Your task to perform on an android device: Show the shopping cart on amazon. Search for "razer blackwidow" on amazon, select the first entry, and add it to the cart. Image 0: 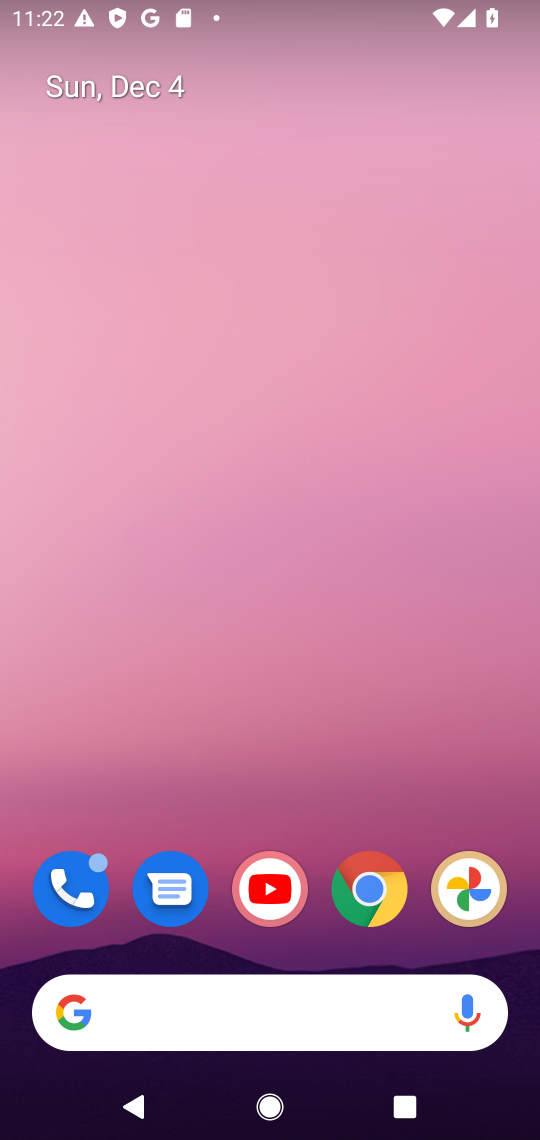
Step 0: click (359, 872)
Your task to perform on an android device: Show the shopping cart on amazon. Search for "razer blackwidow" on amazon, select the first entry, and add it to the cart. Image 1: 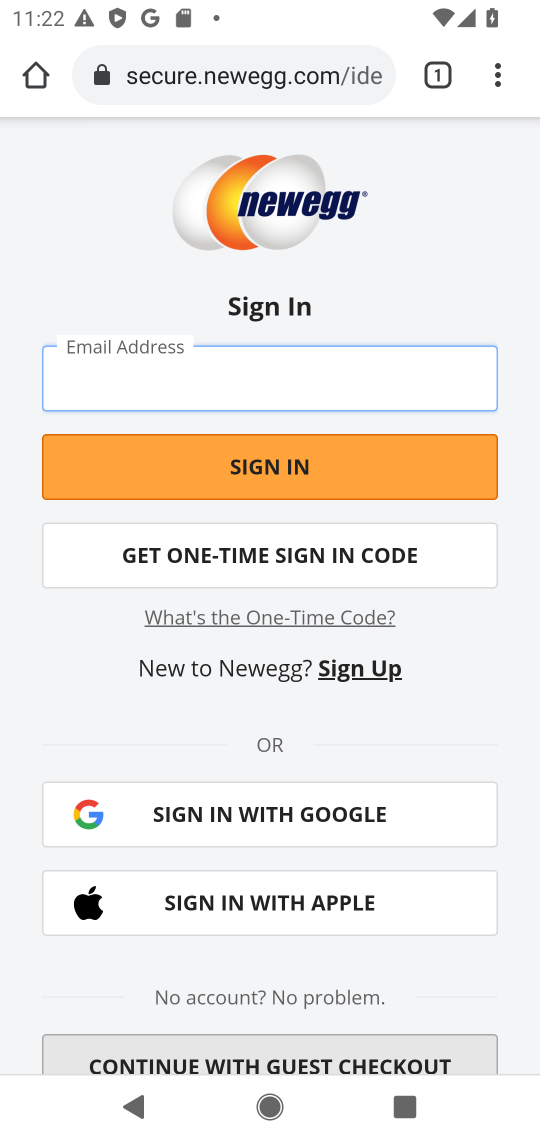
Step 1: click (306, 65)
Your task to perform on an android device: Show the shopping cart on amazon. Search for "razer blackwidow" on amazon, select the first entry, and add it to the cart. Image 2: 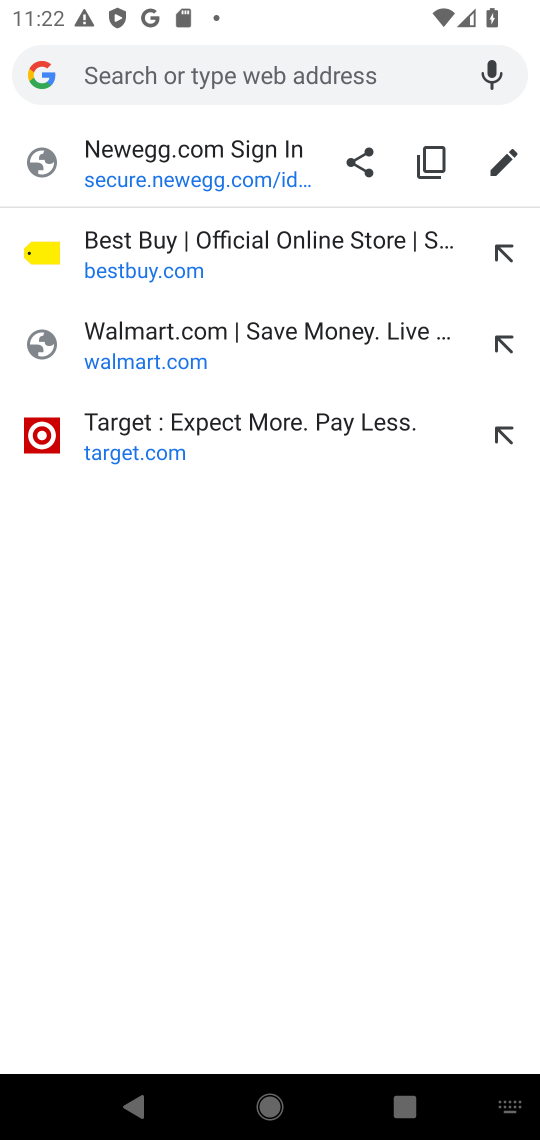
Step 2: type "amazon"
Your task to perform on an android device: Show the shopping cart on amazon. Search for "razer blackwidow" on amazon, select the first entry, and add it to the cart. Image 3: 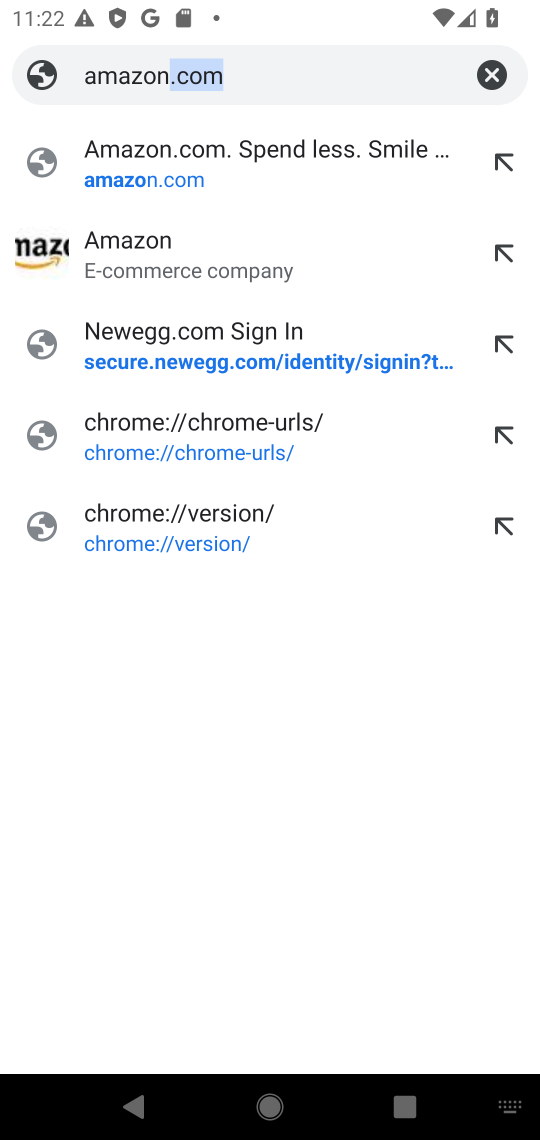
Step 3: press enter
Your task to perform on an android device: Show the shopping cart on amazon. Search for "razer blackwidow" on amazon, select the first entry, and add it to the cart. Image 4: 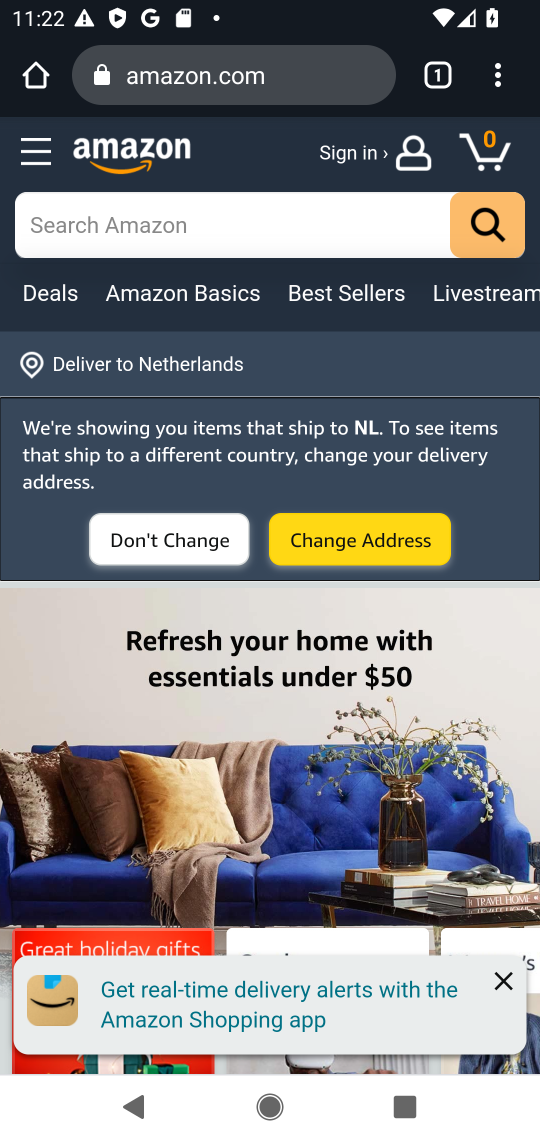
Step 4: click (336, 220)
Your task to perform on an android device: Show the shopping cart on amazon. Search for "razer blackwidow" on amazon, select the first entry, and add it to the cart. Image 5: 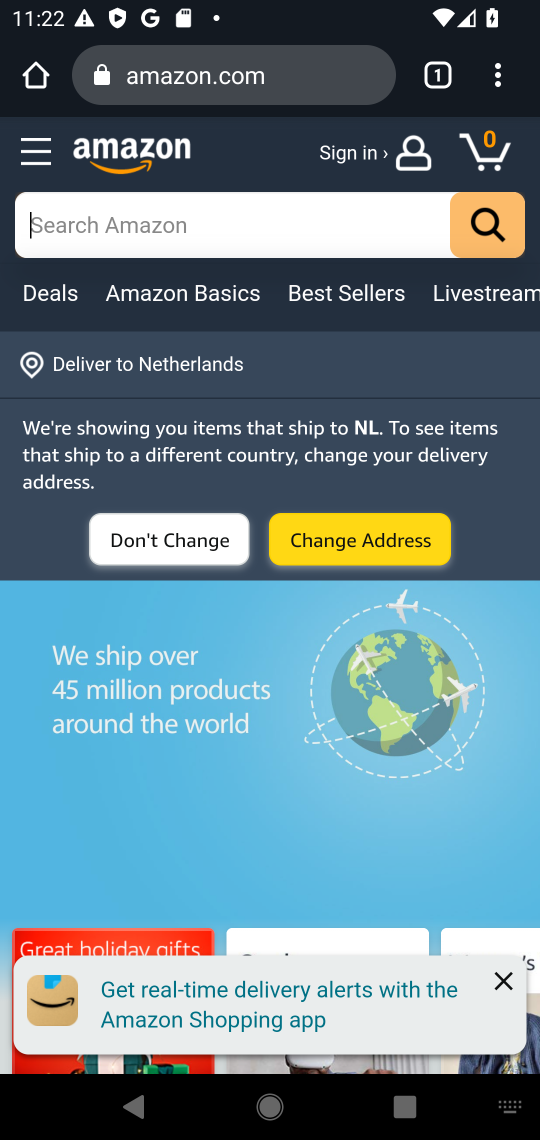
Step 5: type "razer blackwidow"
Your task to perform on an android device: Show the shopping cart on amazon. Search for "razer blackwidow" on amazon, select the first entry, and add it to the cart. Image 6: 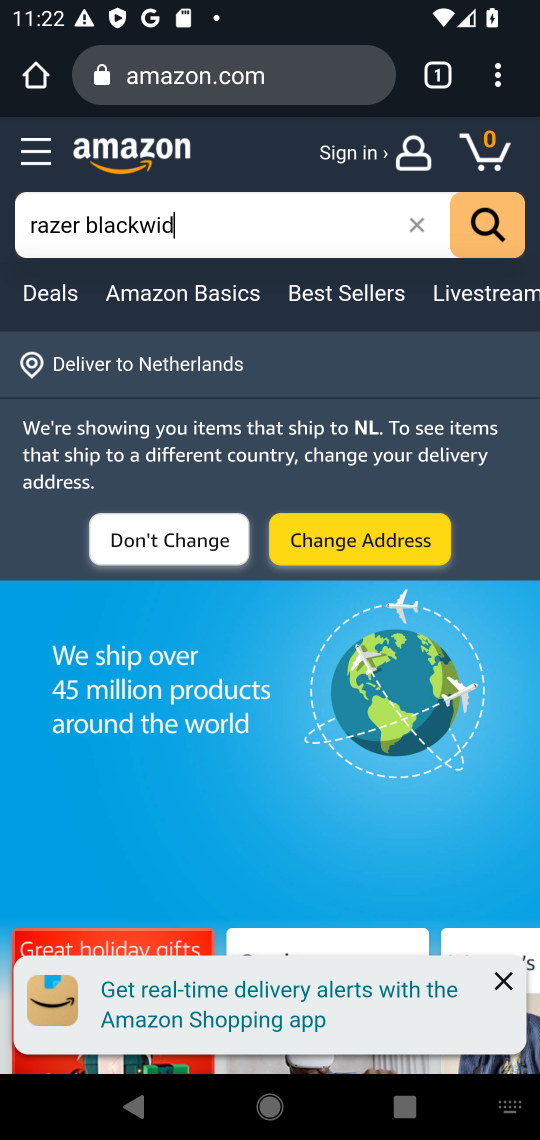
Step 6: press enter
Your task to perform on an android device: Show the shopping cart on amazon. Search for "razer blackwidow" on amazon, select the first entry, and add it to the cart. Image 7: 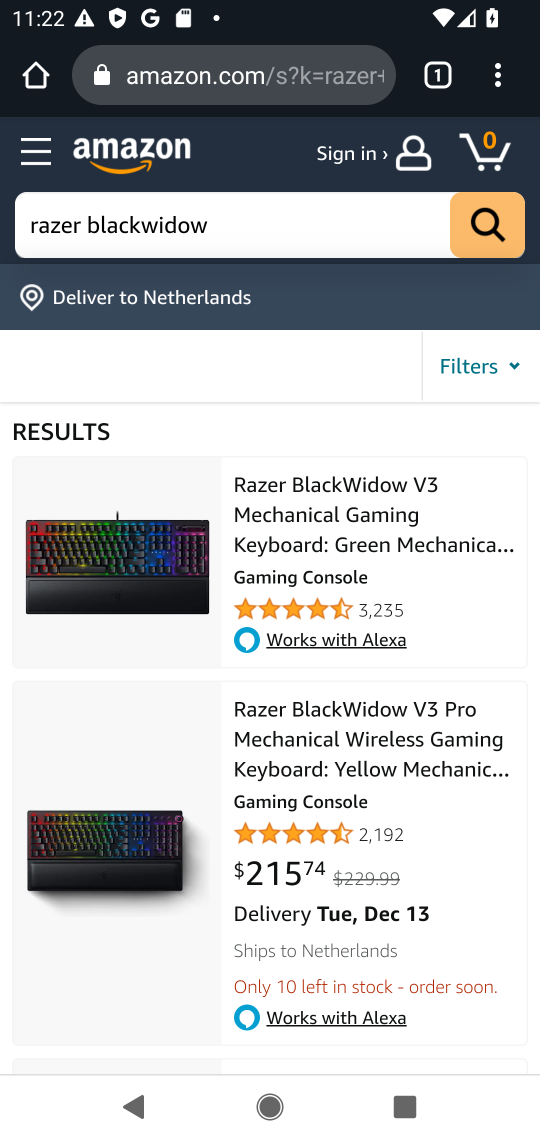
Step 7: click (156, 564)
Your task to perform on an android device: Show the shopping cart on amazon. Search for "razer blackwidow" on amazon, select the first entry, and add it to the cart. Image 8: 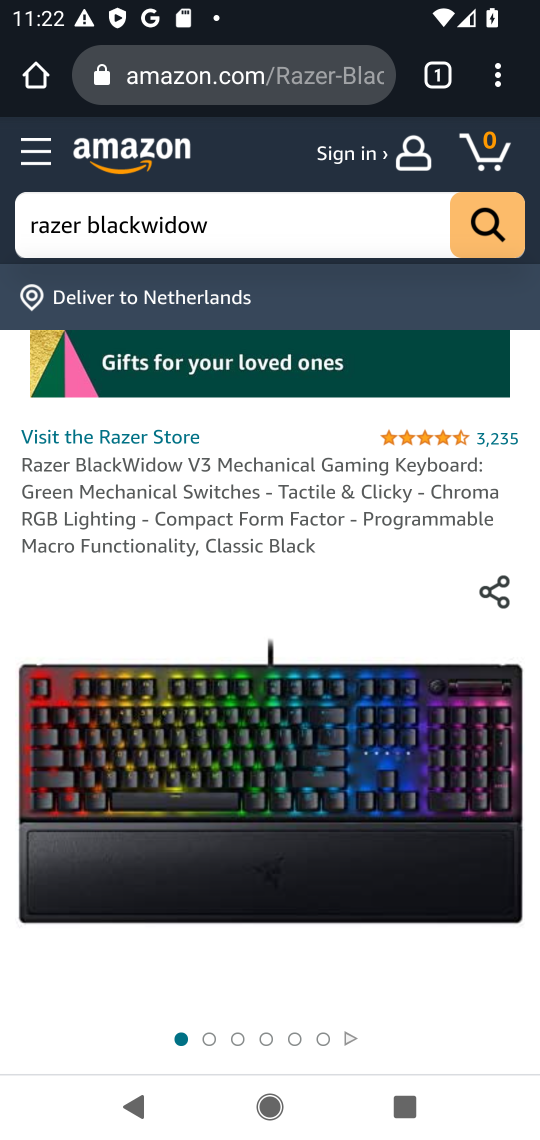
Step 8: drag from (410, 969) to (368, 196)
Your task to perform on an android device: Show the shopping cart on amazon. Search for "razer blackwidow" on amazon, select the first entry, and add it to the cart. Image 9: 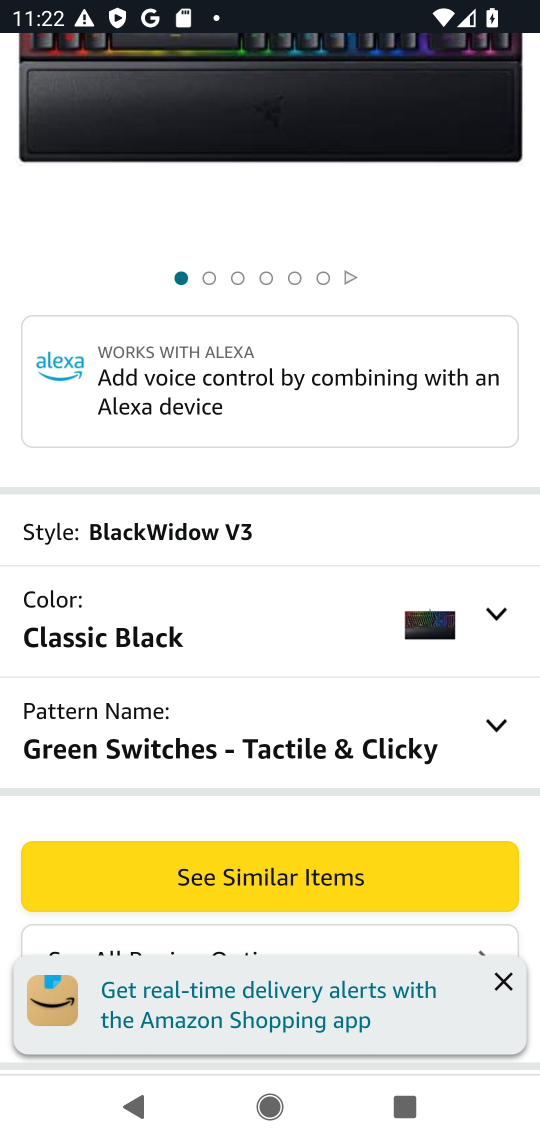
Step 9: press back button
Your task to perform on an android device: Show the shopping cart on amazon. Search for "razer blackwidow" on amazon, select the first entry, and add it to the cart. Image 10: 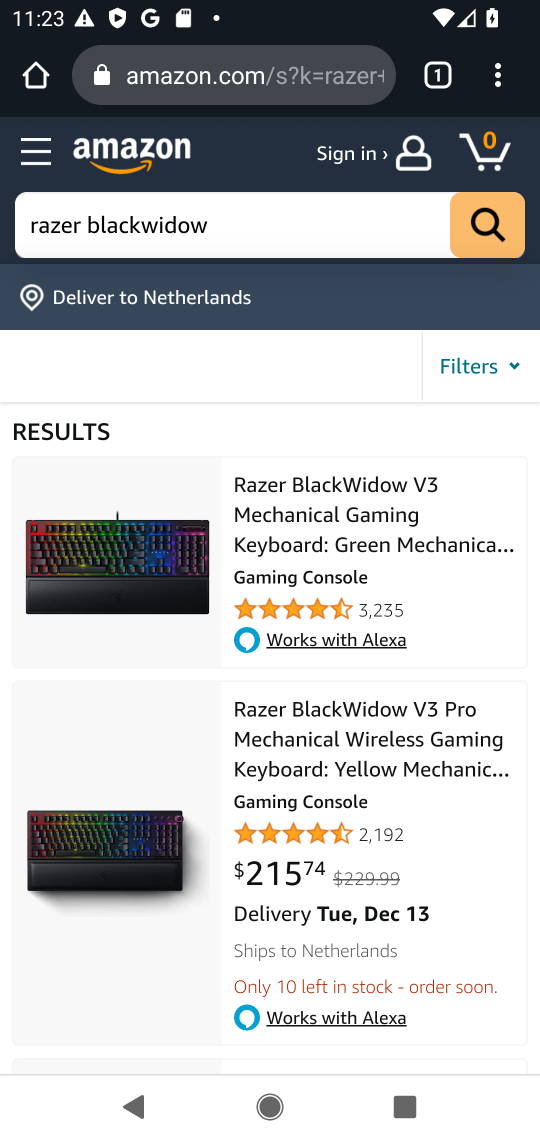
Step 10: click (120, 753)
Your task to perform on an android device: Show the shopping cart on amazon. Search for "razer blackwidow" on amazon, select the first entry, and add it to the cart. Image 11: 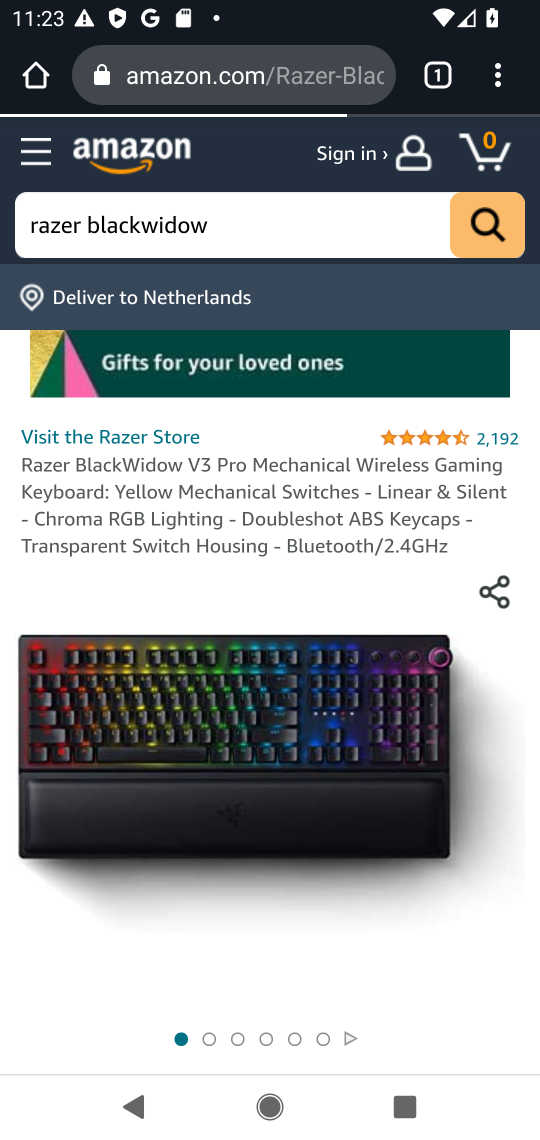
Step 11: drag from (414, 918) to (364, 216)
Your task to perform on an android device: Show the shopping cart on amazon. Search for "razer blackwidow" on amazon, select the first entry, and add it to the cart. Image 12: 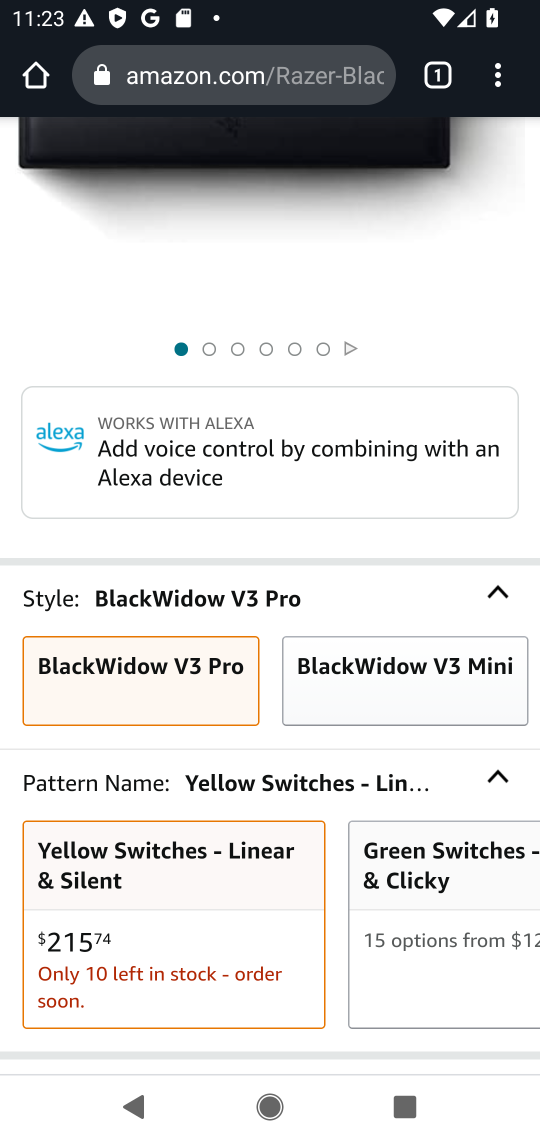
Step 12: drag from (363, 759) to (537, 163)
Your task to perform on an android device: Show the shopping cart on amazon. Search for "razer blackwidow" on amazon, select the first entry, and add it to the cart. Image 13: 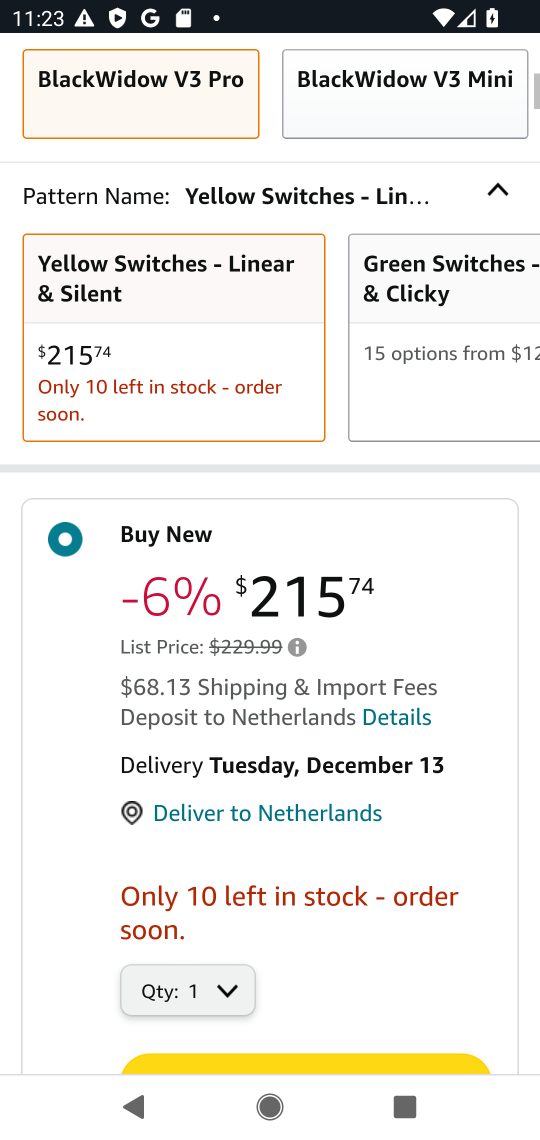
Step 13: drag from (451, 890) to (381, 428)
Your task to perform on an android device: Show the shopping cart on amazon. Search for "razer blackwidow" on amazon, select the first entry, and add it to the cart. Image 14: 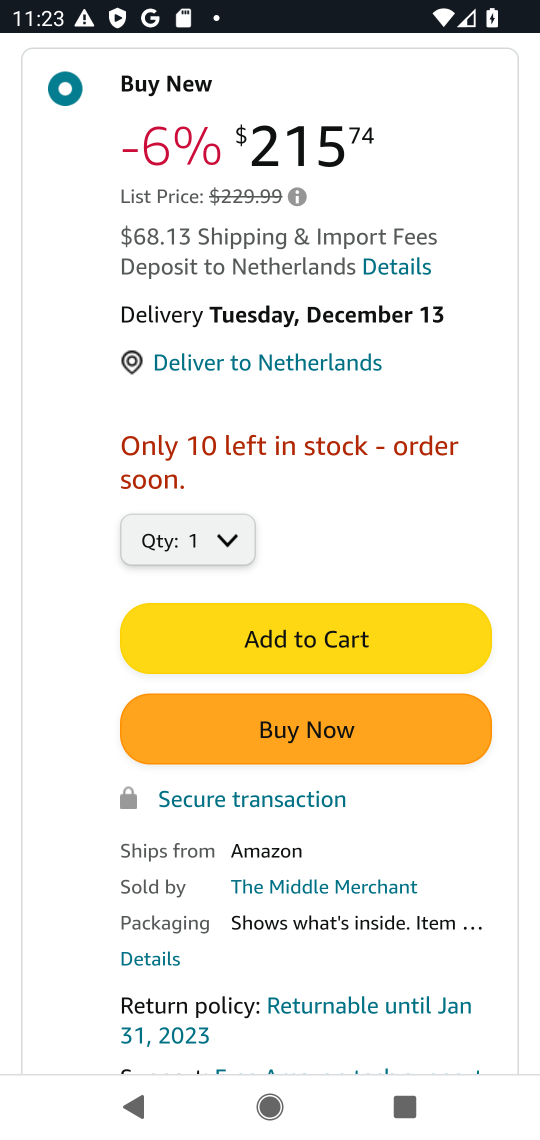
Step 14: click (312, 630)
Your task to perform on an android device: Show the shopping cart on amazon. Search for "razer blackwidow" on amazon, select the first entry, and add it to the cart. Image 15: 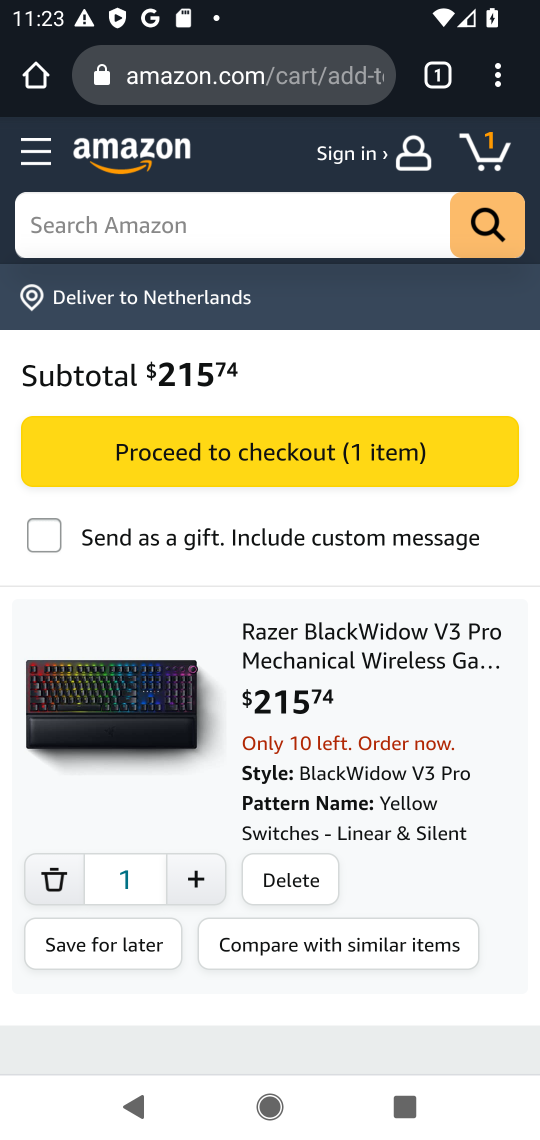
Step 15: task complete